Your task to perform on an android device: Open Google Chrome and open the bookmarks view Image 0: 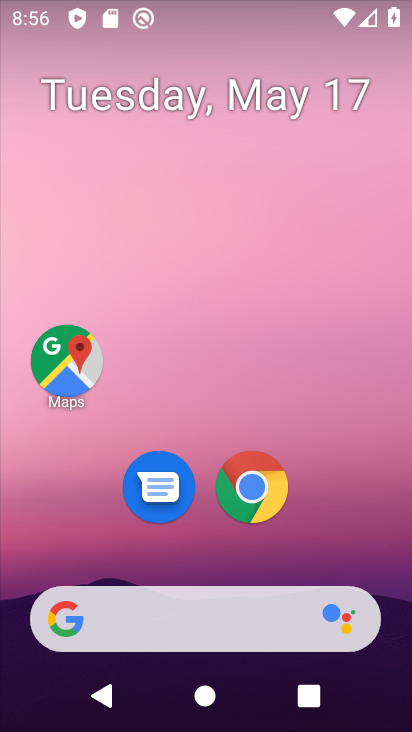
Step 0: press home button
Your task to perform on an android device: Open Google Chrome and open the bookmarks view Image 1: 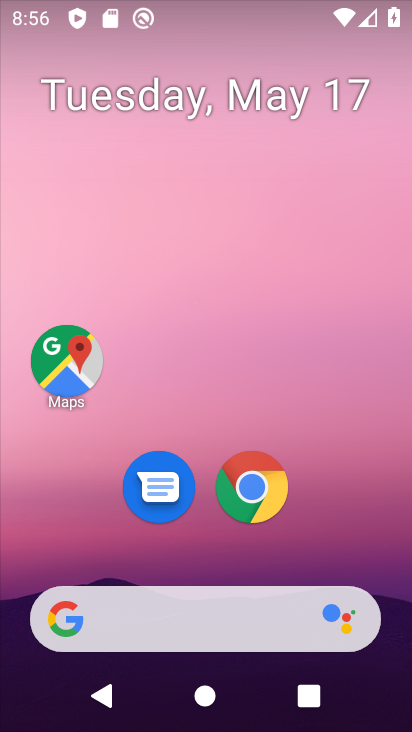
Step 1: drag from (279, 670) to (206, 275)
Your task to perform on an android device: Open Google Chrome and open the bookmarks view Image 2: 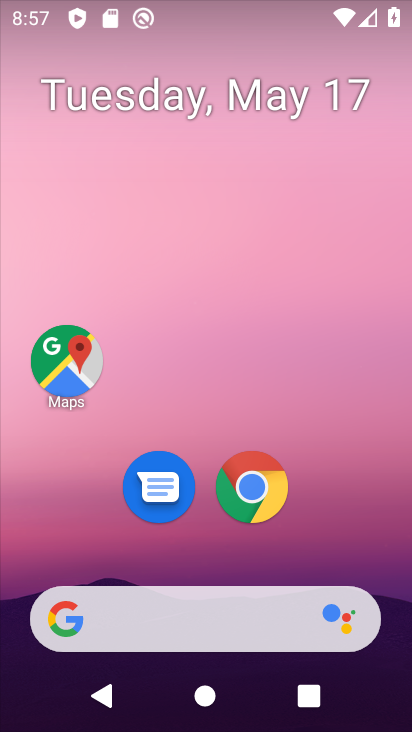
Step 2: drag from (267, 648) to (205, 225)
Your task to perform on an android device: Open Google Chrome and open the bookmarks view Image 3: 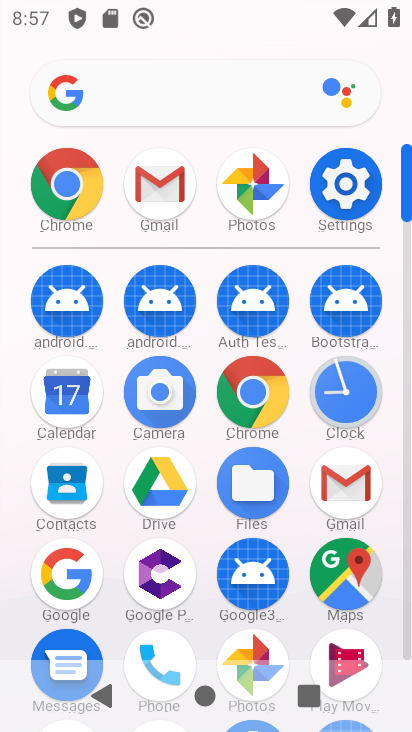
Step 3: click (250, 400)
Your task to perform on an android device: Open Google Chrome and open the bookmarks view Image 4: 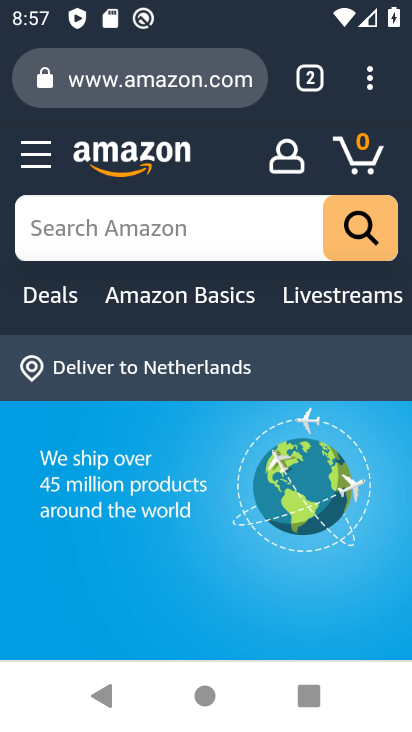
Step 4: click (353, 100)
Your task to perform on an android device: Open Google Chrome and open the bookmarks view Image 5: 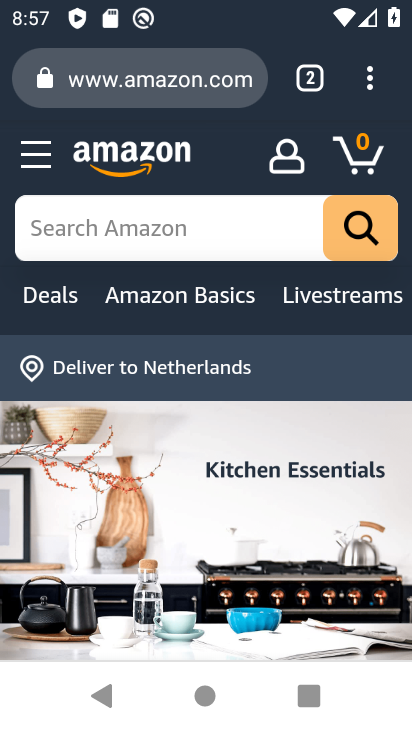
Step 5: click (352, 99)
Your task to perform on an android device: Open Google Chrome and open the bookmarks view Image 6: 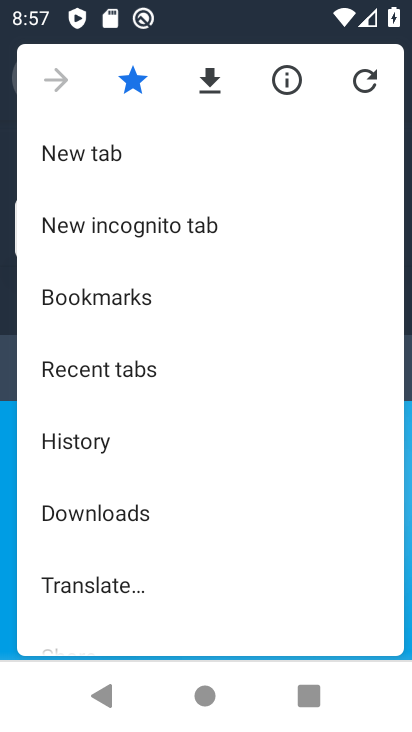
Step 6: click (129, 303)
Your task to perform on an android device: Open Google Chrome and open the bookmarks view Image 7: 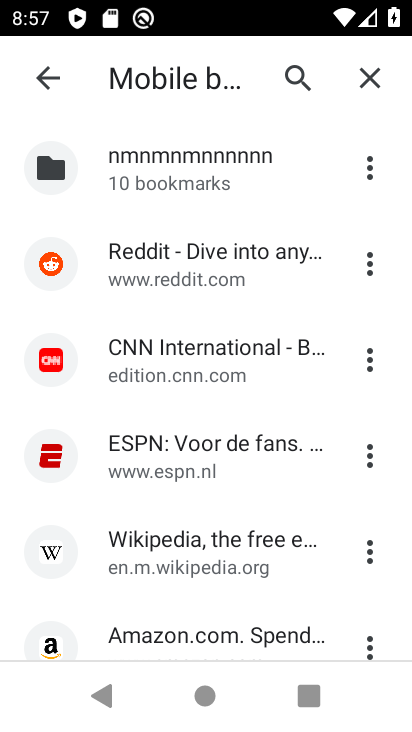
Step 7: task complete